Your task to perform on an android device: turn off location Image 0: 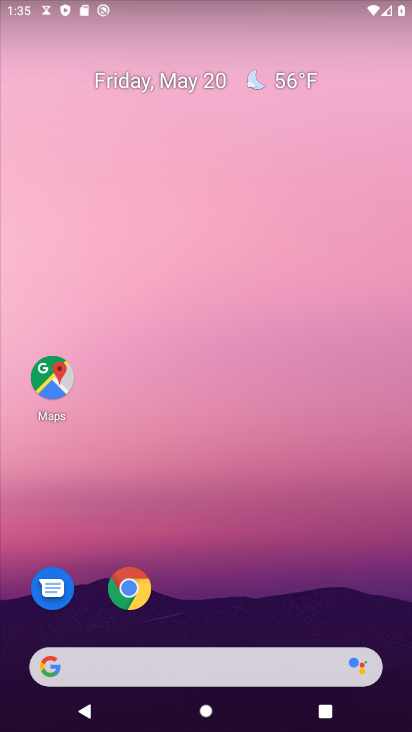
Step 0: press home button
Your task to perform on an android device: turn off location Image 1: 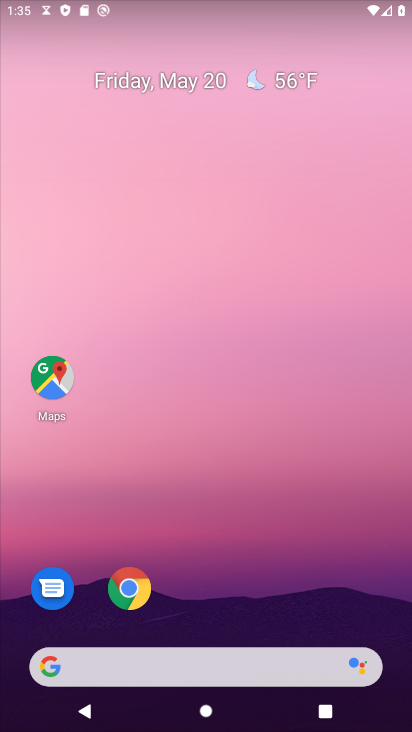
Step 1: drag from (38, 546) to (231, 145)
Your task to perform on an android device: turn off location Image 2: 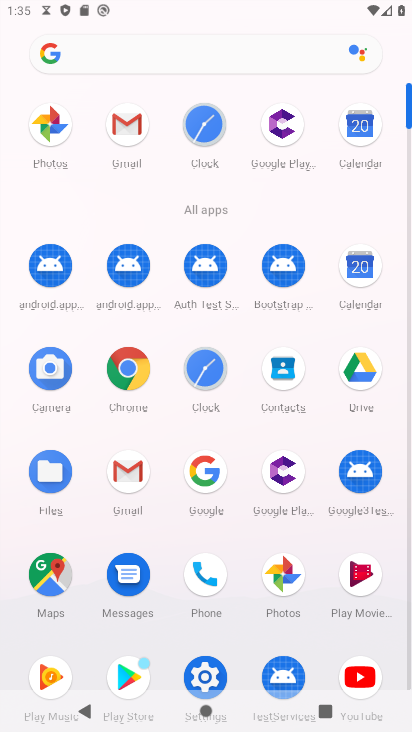
Step 2: click (187, 668)
Your task to perform on an android device: turn off location Image 3: 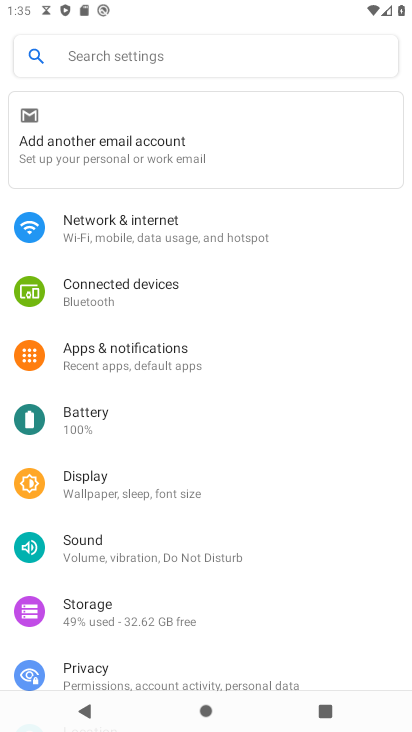
Step 3: drag from (160, 650) to (187, 214)
Your task to perform on an android device: turn off location Image 4: 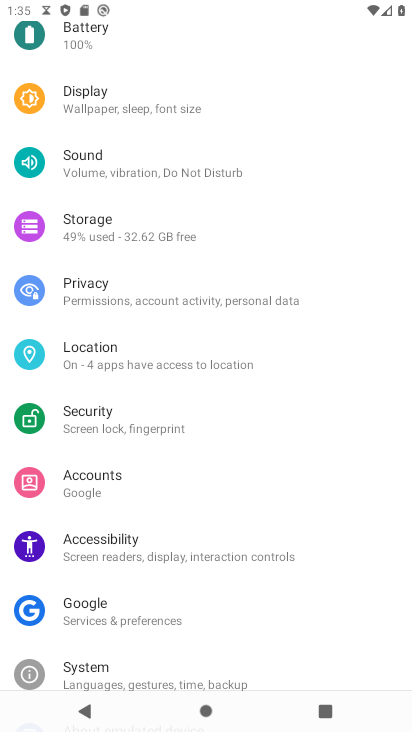
Step 4: click (129, 357)
Your task to perform on an android device: turn off location Image 5: 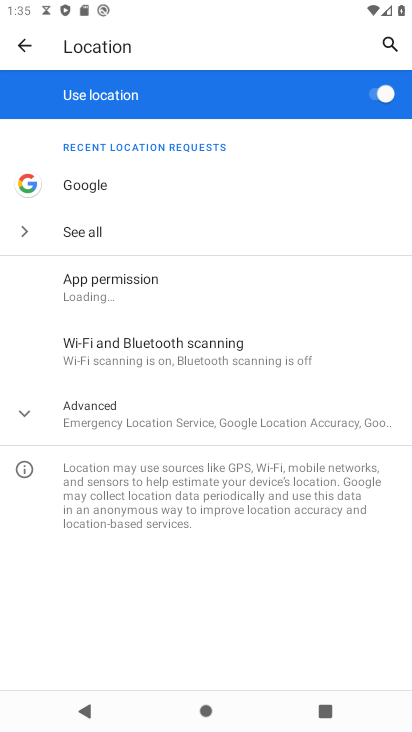
Step 5: click (382, 102)
Your task to perform on an android device: turn off location Image 6: 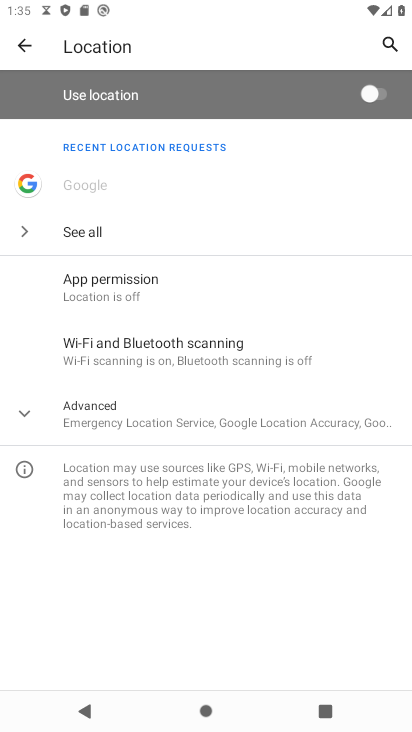
Step 6: task complete